Your task to perform on an android device: Is it going to rain today? Image 0: 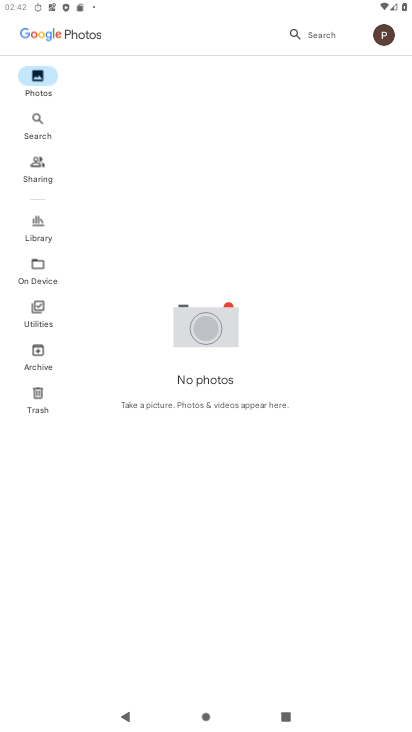
Step 0: press home button
Your task to perform on an android device: Is it going to rain today? Image 1: 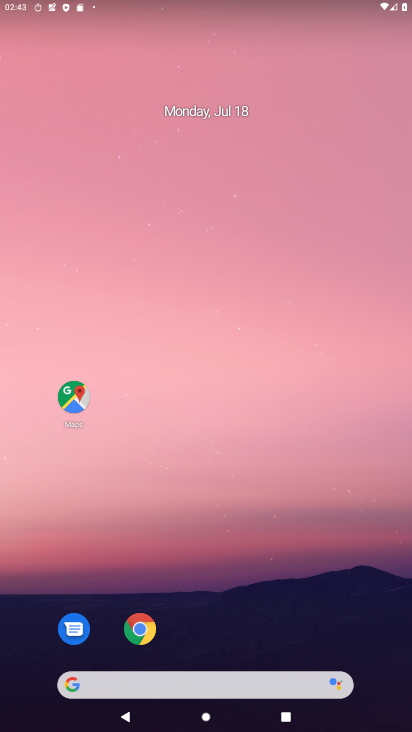
Step 1: click (202, 676)
Your task to perform on an android device: Is it going to rain today? Image 2: 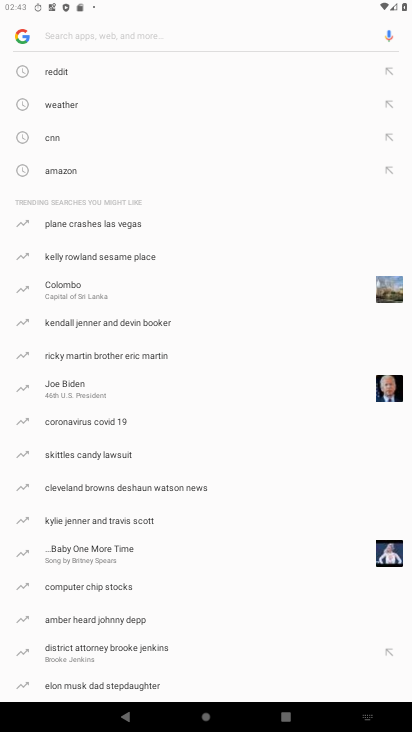
Step 2: click (81, 105)
Your task to perform on an android device: Is it going to rain today? Image 3: 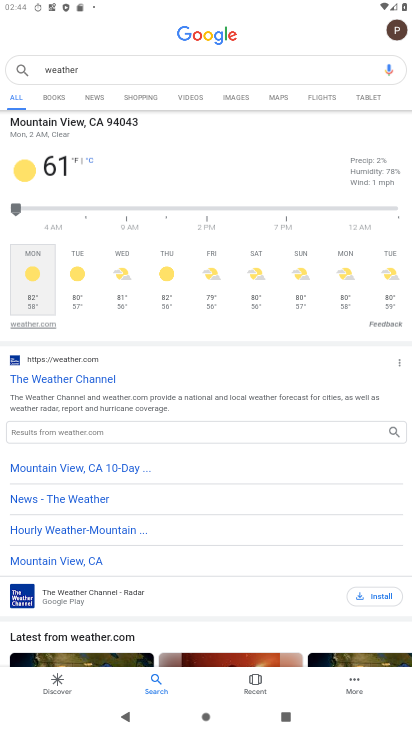
Step 3: task complete